Your task to perform on an android device: toggle sleep mode Image 0: 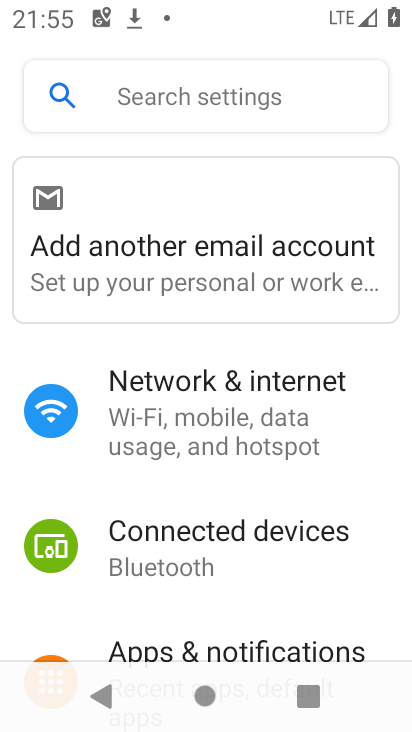
Step 0: click (228, 102)
Your task to perform on an android device: toggle sleep mode Image 1: 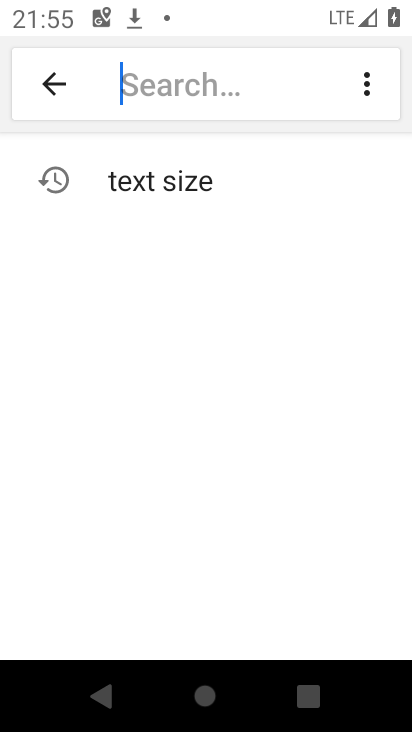
Step 1: type "sleep mode"
Your task to perform on an android device: toggle sleep mode Image 2: 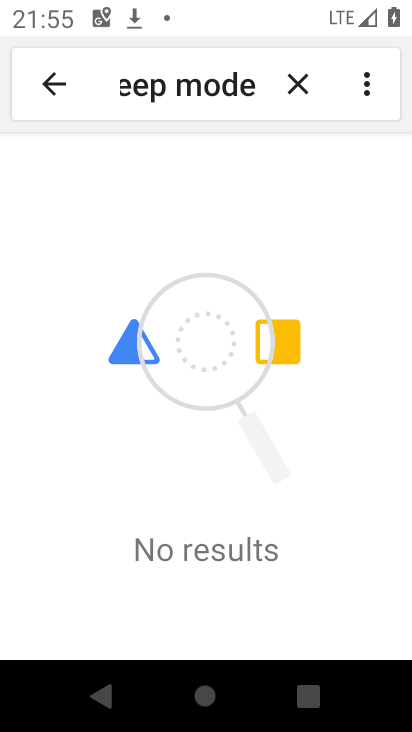
Step 2: task complete